Your task to perform on an android device: Open the Play Movies app and select the watchlist tab. Image 0: 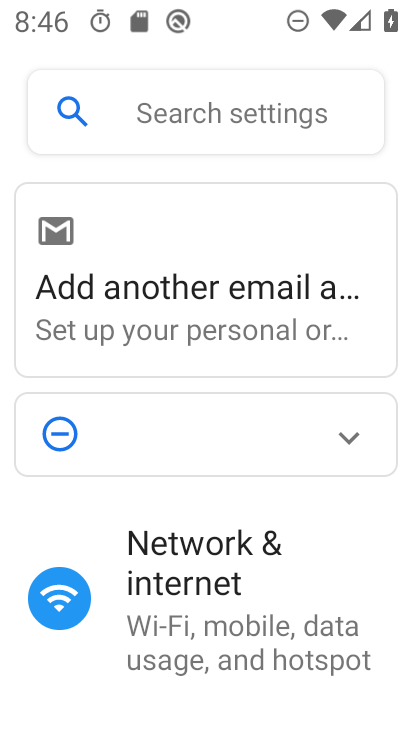
Step 0: press home button
Your task to perform on an android device: Open the Play Movies app and select the watchlist tab. Image 1: 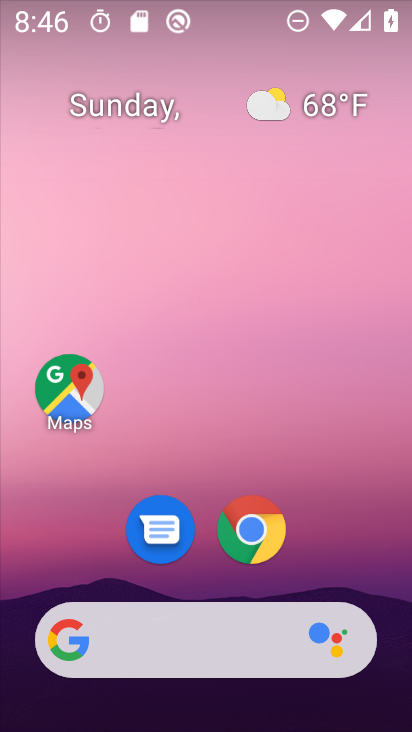
Step 1: drag from (207, 579) to (264, 10)
Your task to perform on an android device: Open the Play Movies app and select the watchlist tab. Image 2: 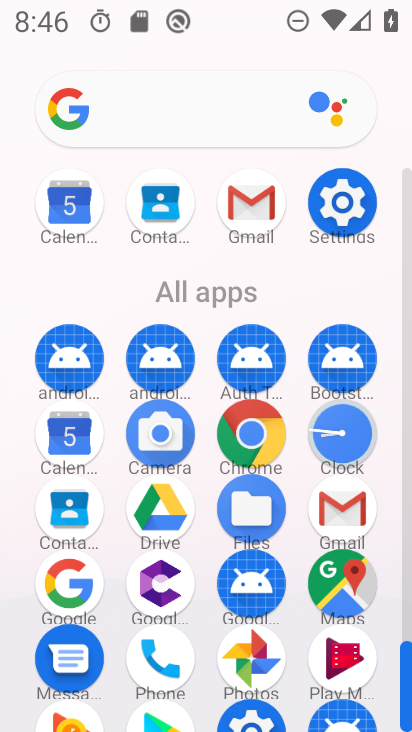
Step 2: click (338, 653)
Your task to perform on an android device: Open the Play Movies app and select the watchlist tab. Image 3: 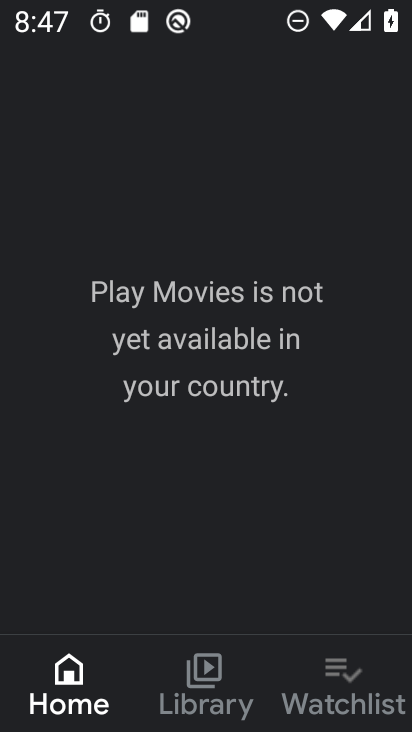
Step 3: click (341, 674)
Your task to perform on an android device: Open the Play Movies app and select the watchlist tab. Image 4: 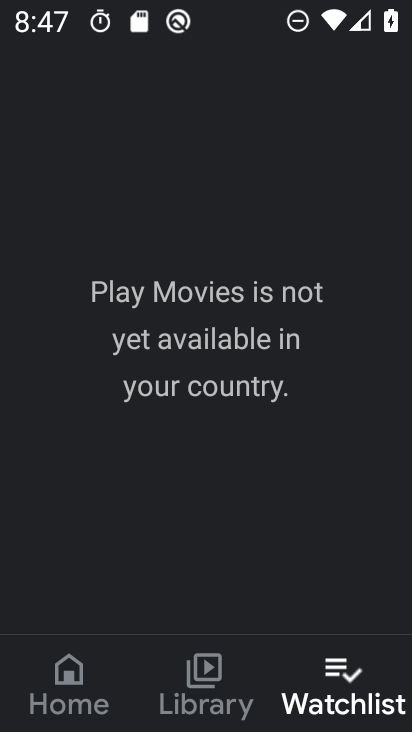
Step 4: task complete